Your task to perform on an android device: Set the phone to "Do not disturb". Image 0: 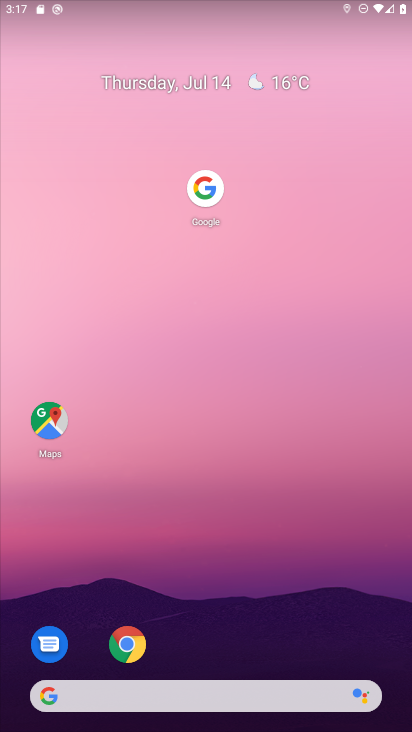
Step 0: drag from (173, 646) to (182, 356)
Your task to perform on an android device: Set the phone to "Do not disturb". Image 1: 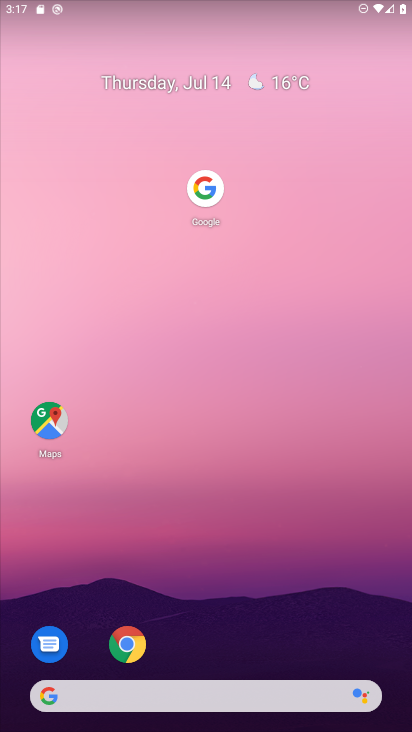
Step 1: drag from (221, 641) to (198, 132)
Your task to perform on an android device: Set the phone to "Do not disturb". Image 2: 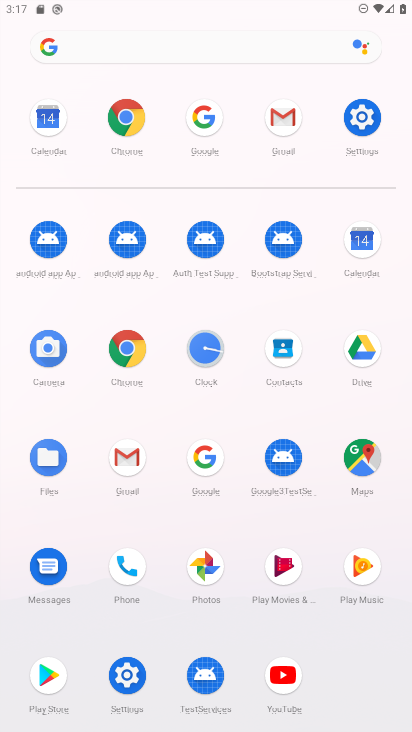
Step 2: click (360, 110)
Your task to perform on an android device: Set the phone to "Do not disturb". Image 3: 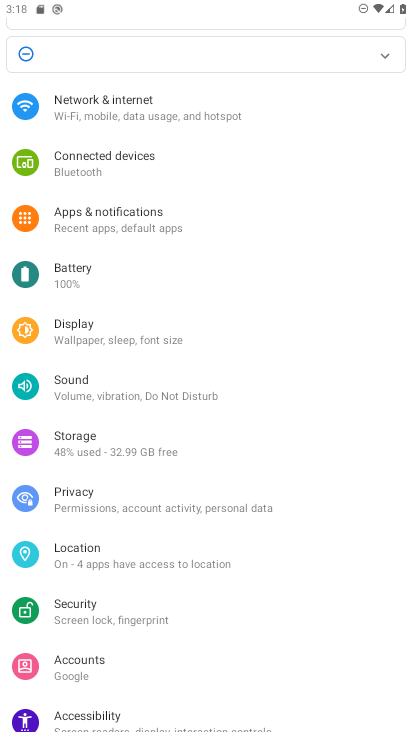
Step 3: click (138, 385)
Your task to perform on an android device: Set the phone to "Do not disturb". Image 4: 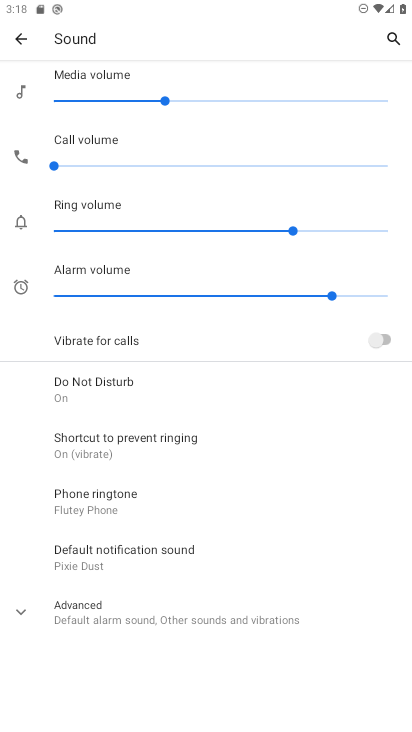
Step 4: click (133, 397)
Your task to perform on an android device: Set the phone to "Do not disturb". Image 5: 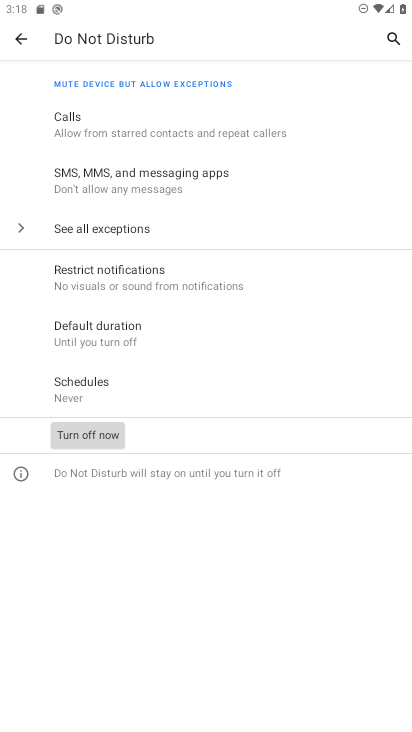
Step 5: task complete